Your task to perform on an android device: open app "The Home Depot" (install if not already installed) Image 0: 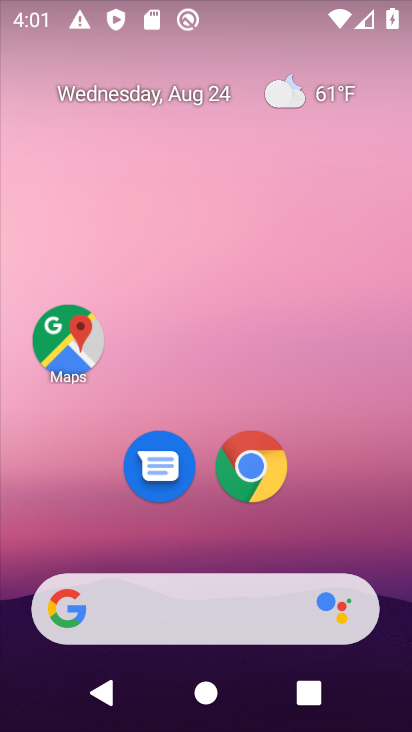
Step 0: drag from (195, 542) to (188, 29)
Your task to perform on an android device: open app "The Home Depot" (install if not already installed) Image 1: 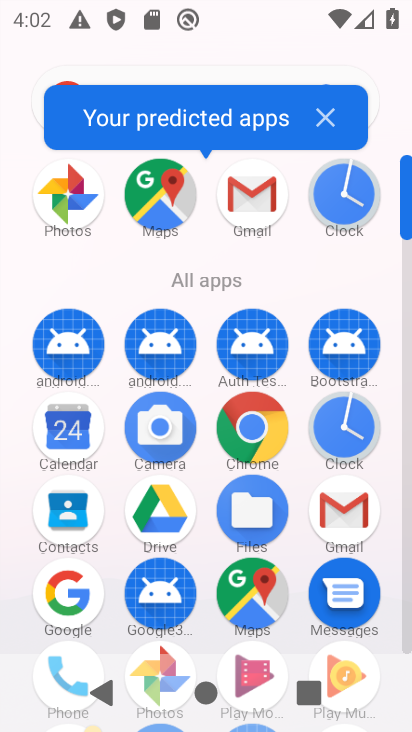
Step 1: drag from (204, 646) to (173, 90)
Your task to perform on an android device: open app "The Home Depot" (install if not already installed) Image 2: 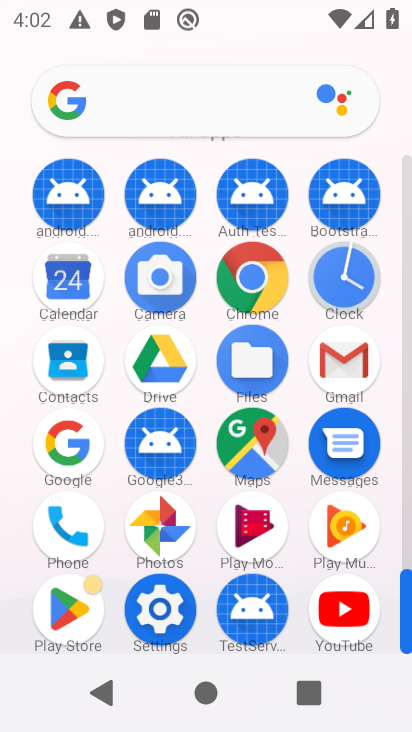
Step 2: click (72, 611)
Your task to perform on an android device: open app "The Home Depot" (install if not already installed) Image 3: 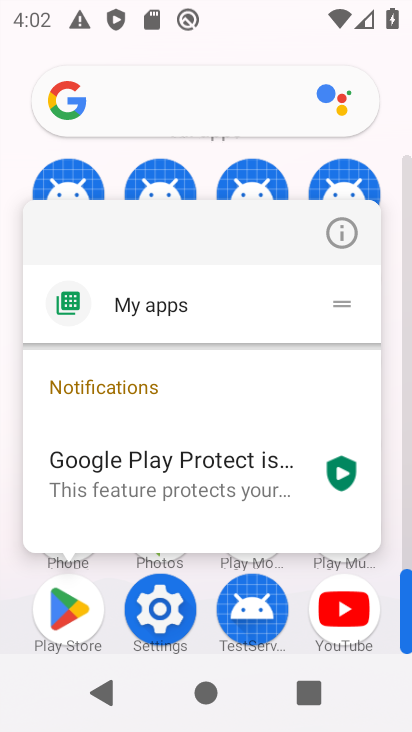
Step 3: click (62, 609)
Your task to perform on an android device: open app "The Home Depot" (install if not already installed) Image 4: 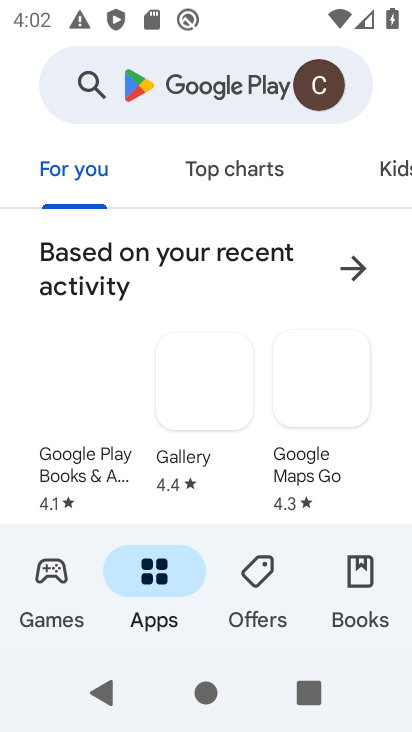
Step 4: click (178, 82)
Your task to perform on an android device: open app "The Home Depot" (install if not already installed) Image 5: 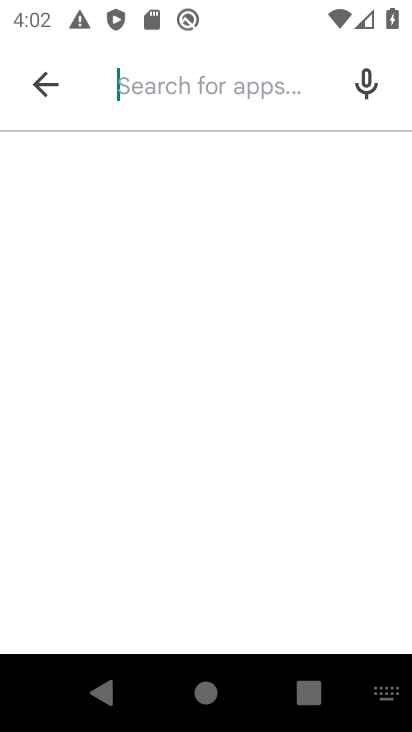
Step 5: type "The Home Depot"
Your task to perform on an android device: open app "The Home Depot" (install if not already installed) Image 6: 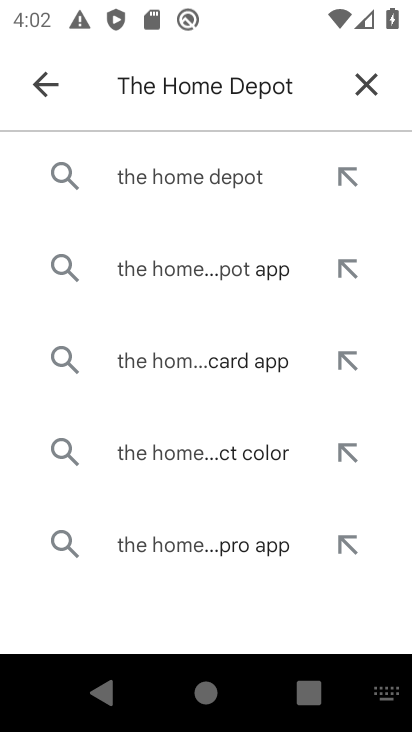
Step 6: click (174, 184)
Your task to perform on an android device: open app "The Home Depot" (install if not already installed) Image 7: 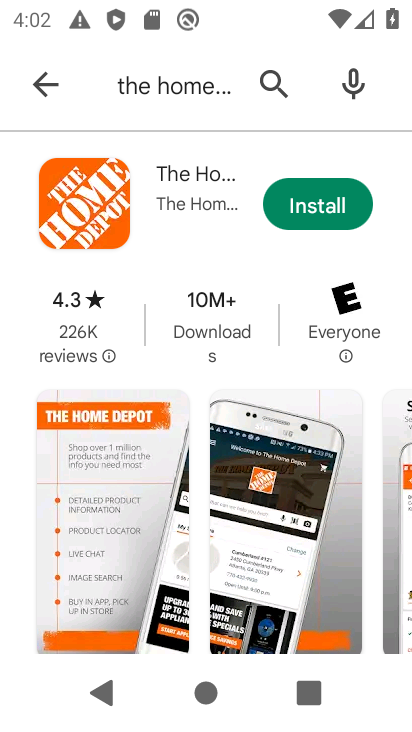
Step 7: click (331, 204)
Your task to perform on an android device: open app "The Home Depot" (install if not already installed) Image 8: 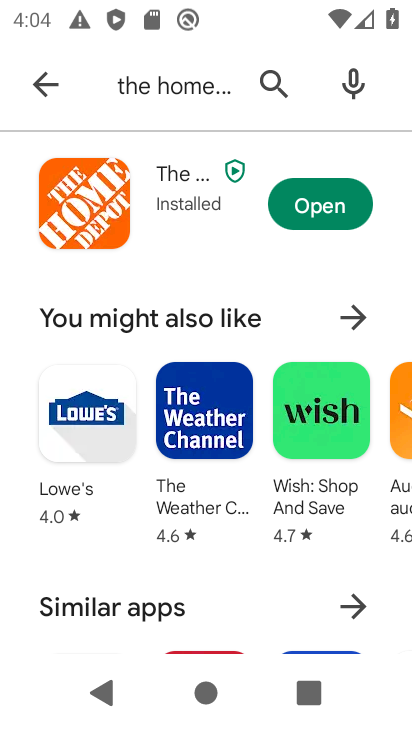
Step 8: click (349, 208)
Your task to perform on an android device: open app "The Home Depot" (install if not already installed) Image 9: 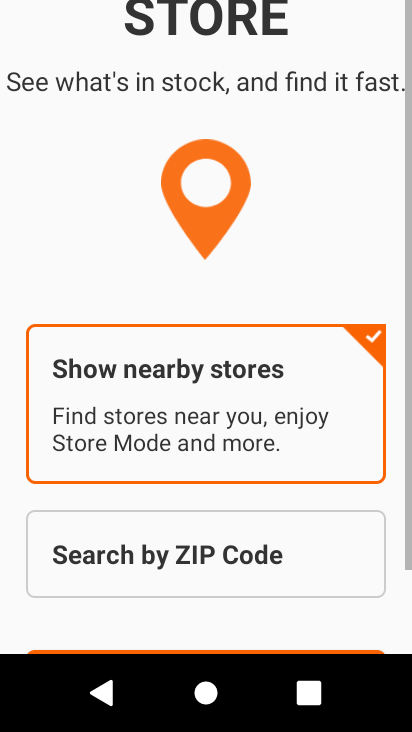
Step 9: press home button
Your task to perform on an android device: open app "The Home Depot" (install if not already installed) Image 10: 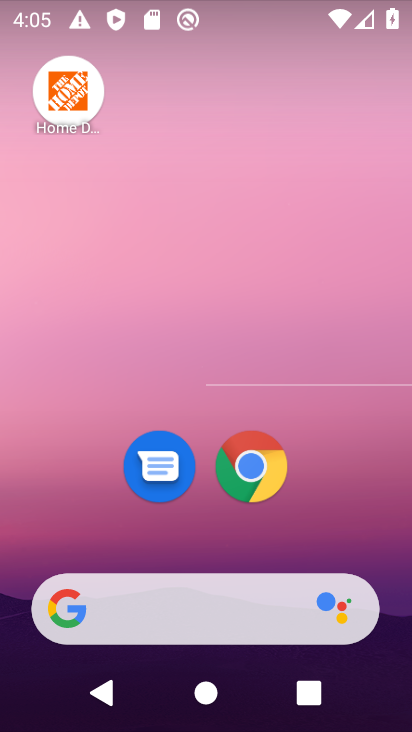
Step 10: drag from (200, 592) to (206, 61)
Your task to perform on an android device: open app "The Home Depot" (install if not already installed) Image 11: 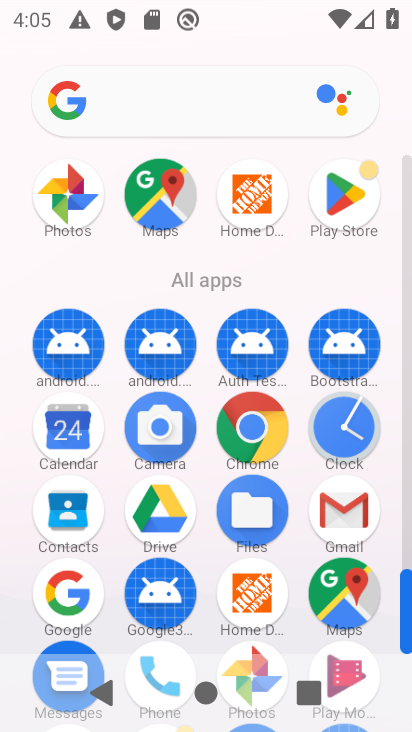
Step 11: click (338, 197)
Your task to perform on an android device: open app "The Home Depot" (install if not already installed) Image 12: 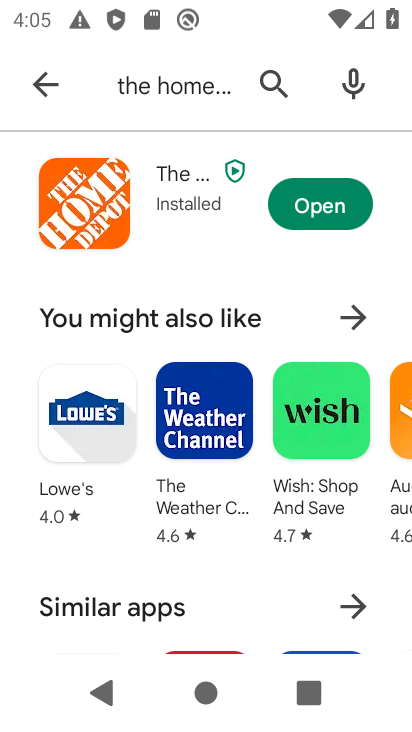
Step 12: click (271, 87)
Your task to perform on an android device: open app "The Home Depot" (install if not already installed) Image 13: 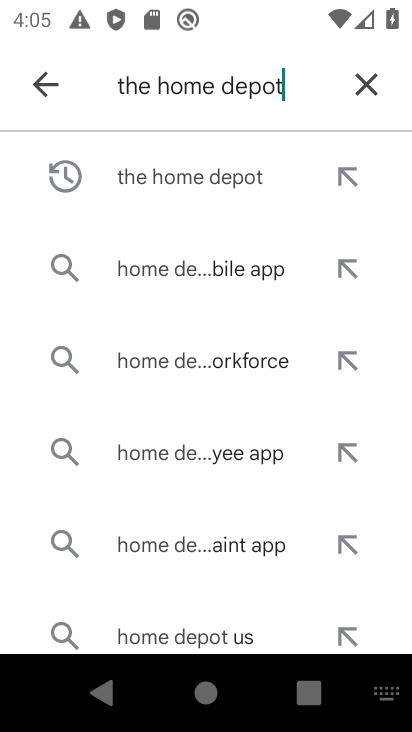
Step 13: click (163, 172)
Your task to perform on an android device: open app "The Home Depot" (install if not already installed) Image 14: 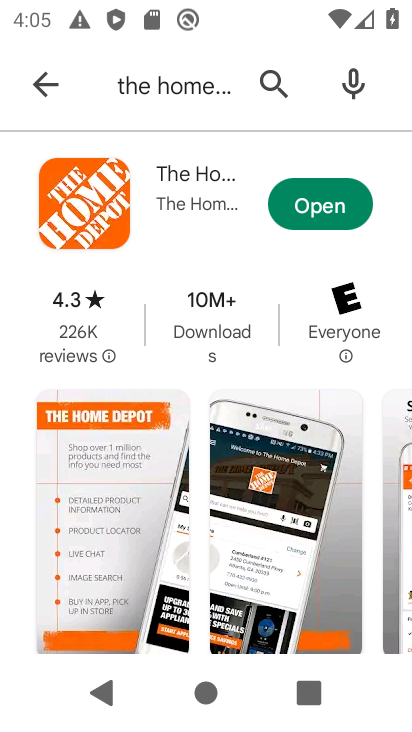
Step 14: click (299, 204)
Your task to perform on an android device: open app "The Home Depot" (install if not already installed) Image 15: 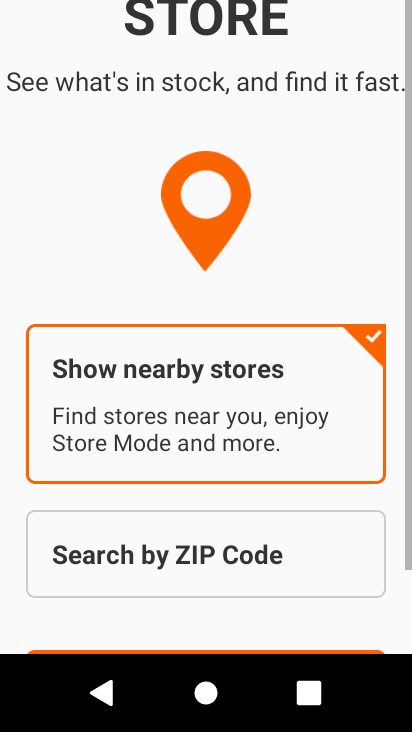
Step 15: task complete